Your task to perform on an android device: turn smart compose on in the gmail app Image 0: 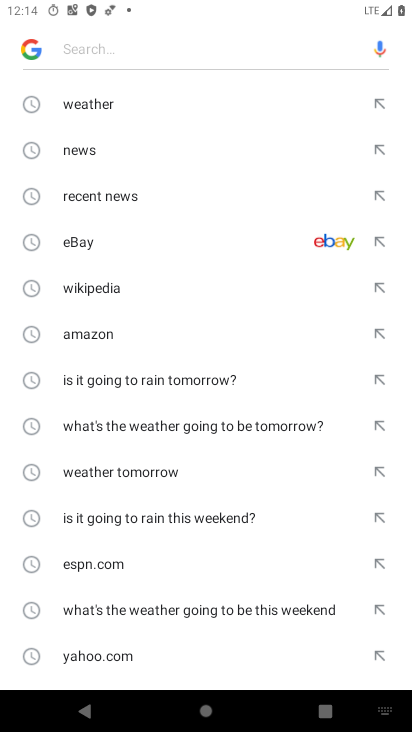
Step 0: press home button
Your task to perform on an android device: turn smart compose on in the gmail app Image 1: 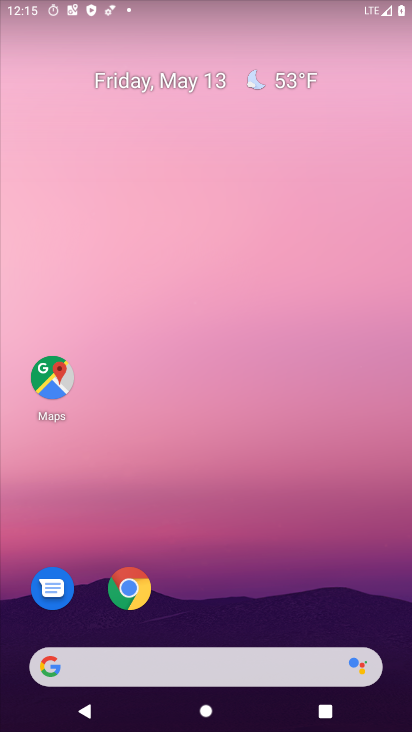
Step 1: drag from (267, 603) to (233, 137)
Your task to perform on an android device: turn smart compose on in the gmail app Image 2: 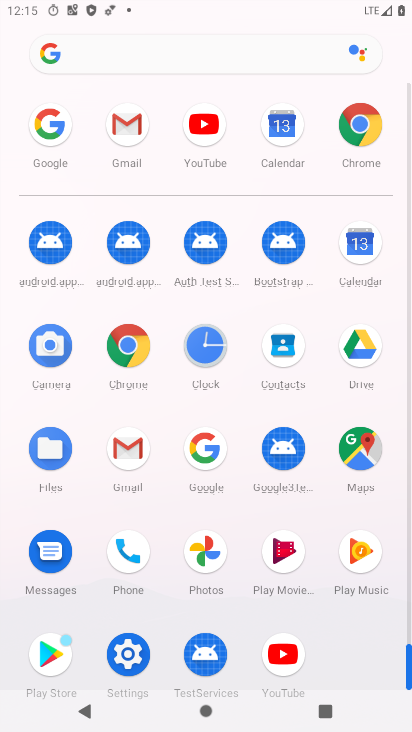
Step 2: click (116, 122)
Your task to perform on an android device: turn smart compose on in the gmail app Image 3: 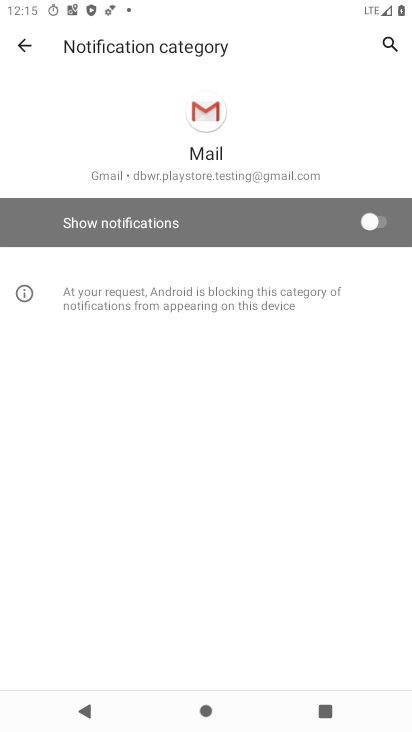
Step 3: click (22, 49)
Your task to perform on an android device: turn smart compose on in the gmail app Image 4: 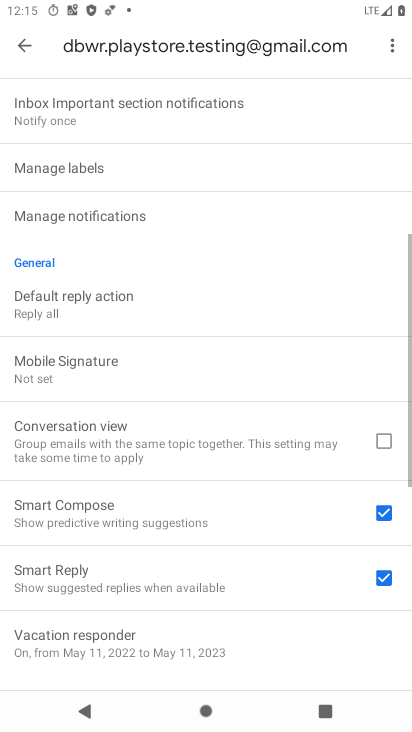
Step 4: task complete